Your task to perform on an android device: clear all cookies in the chrome app Image 0: 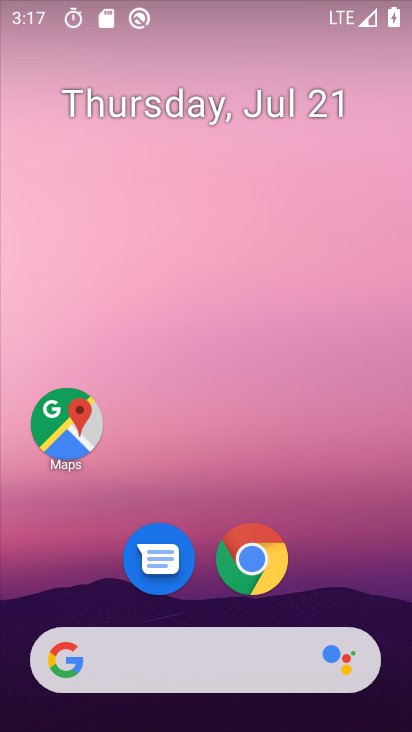
Step 0: drag from (373, 561) to (352, 115)
Your task to perform on an android device: clear all cookies in the chrome app Image 1: 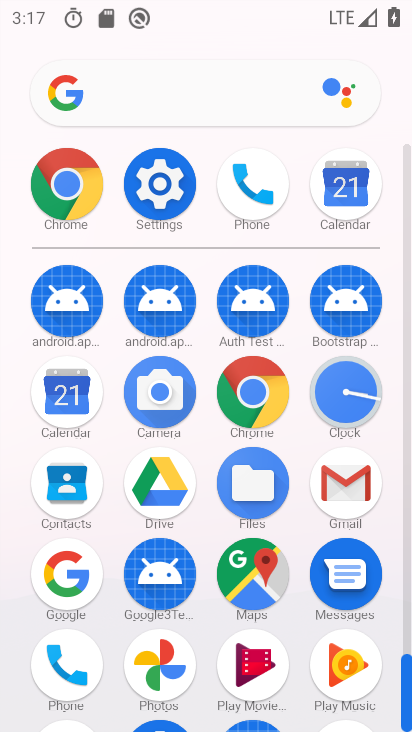
Step 1: click (280, 398)
Your task to perform on an android device: clear all cookies in the chrome app Image 2: 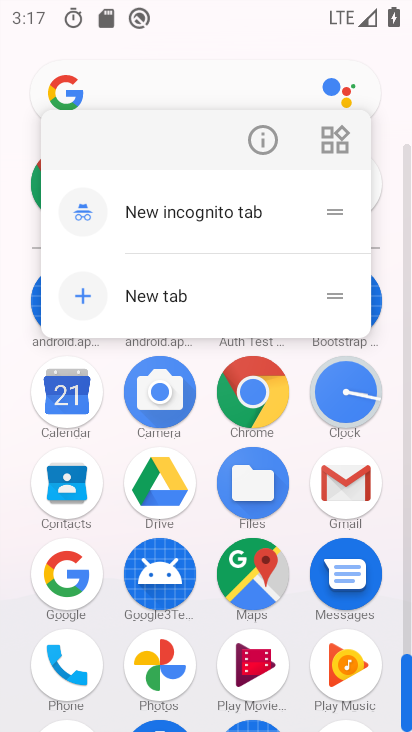
Step 2: click (261, 385)
Your task to perform on an android device: clear all cookies in the chrome app Image 3: 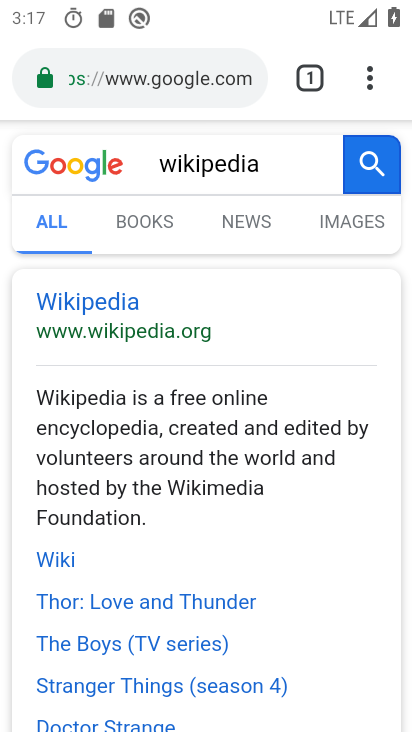
Step 3: click (368, 86)
Your task to perform on an android device: clear all cookies in the chrome app Image 4: 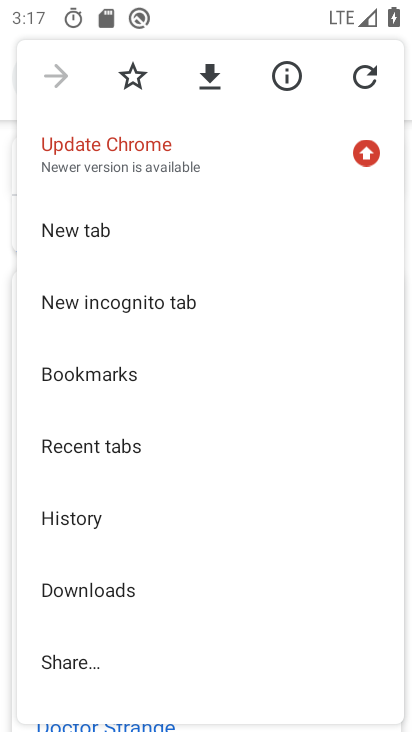
Step 4: drag from (312, 461) to (316, 399)
Your task to perform on an android device: clear all cookies in the chrome app Image 5: 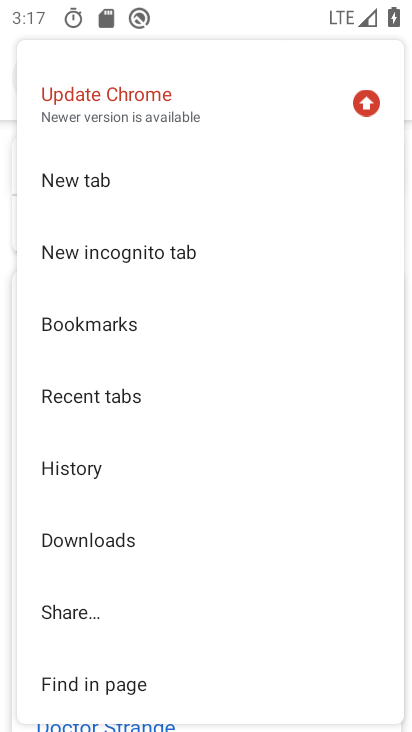
Step 5: drag from (295, 514) to (295, 441)
Your task to perform on an android device: clear all cookies in the chrome app Image 6: 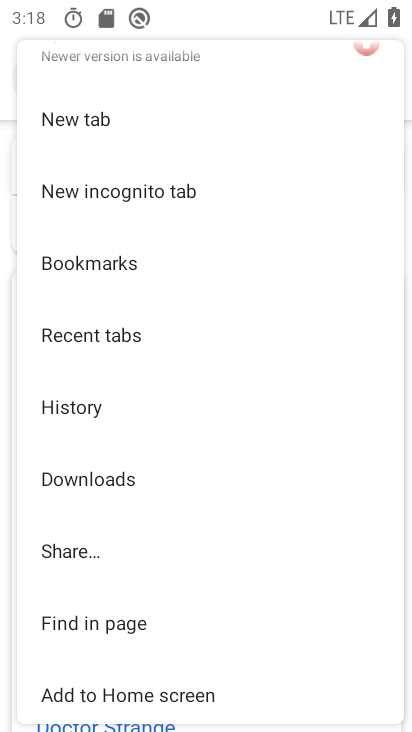
Step 6: drag from (275, 517) to (274, 426)
Your task to perform on an android device: clear all cookies in the chrome app Image 7: 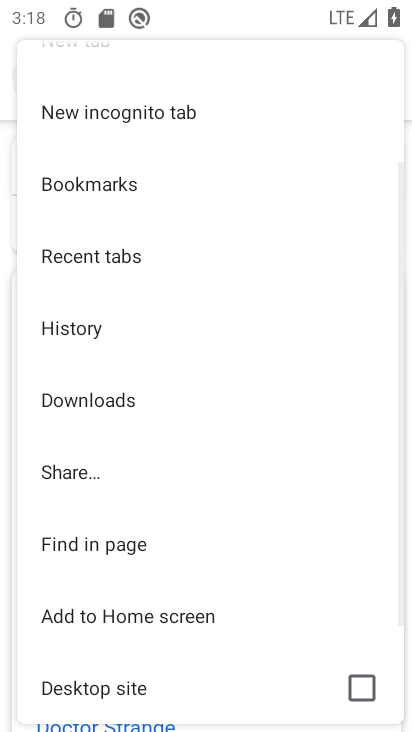
Step 7: drag from (260, 530) to (260, 458)
Your task to perform on an android device: clear all cookies in the chrome app Image 8: 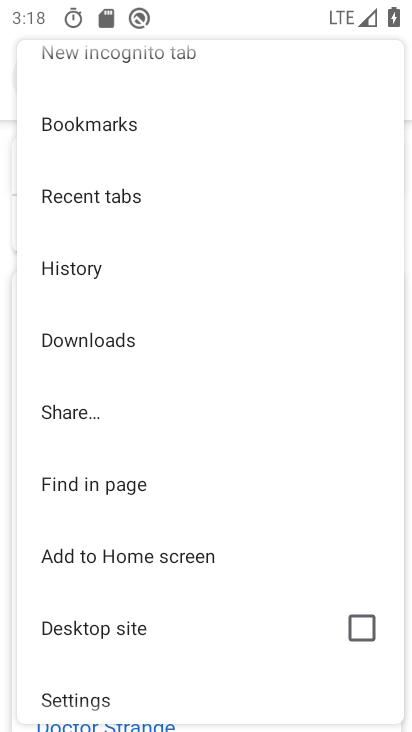
Step 8: drag from (250, 543) to (253, 440)
Your task to perform on an android device: clear all cookies in the chrome app Image 9: 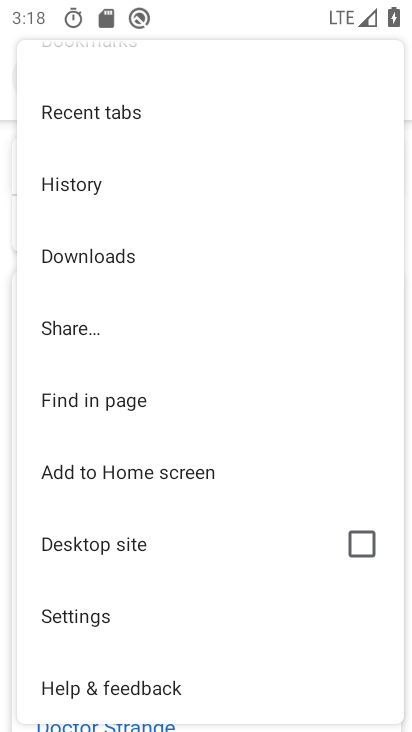
Step 9: click (230, 633)
Your task to perform on an android device: clear all cookies in the chrome app Image 10: 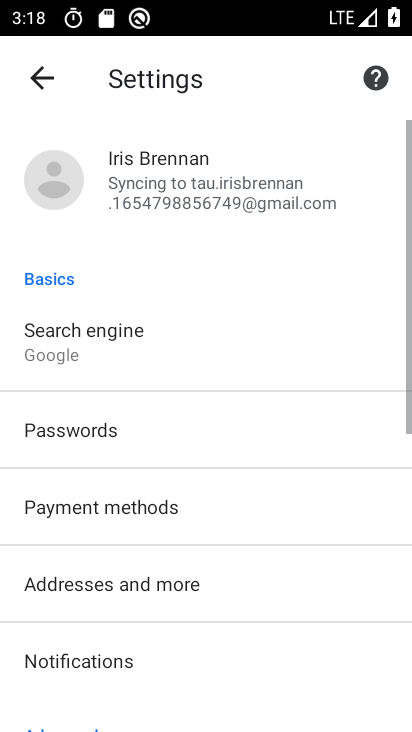
Step 10: drag from (308, 578) to (308, 503)
Your task to perform on an android device: clear all cookies in the chrome app Image 11: 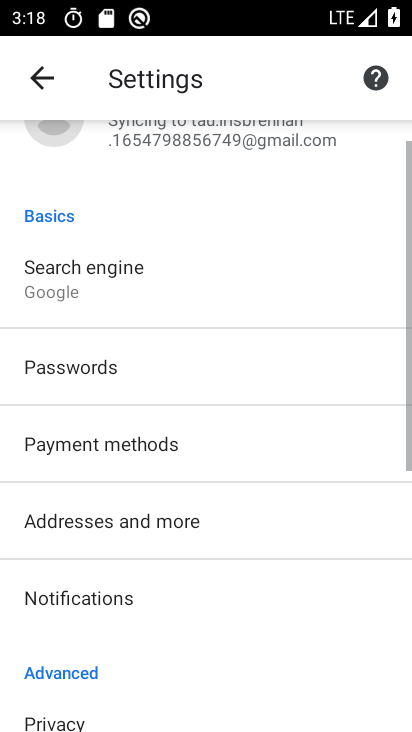
Step 11: drag from (286, 609) to (296, 535)
Your task to perform on an android device: clear all cookies in the chrome app Image 12: 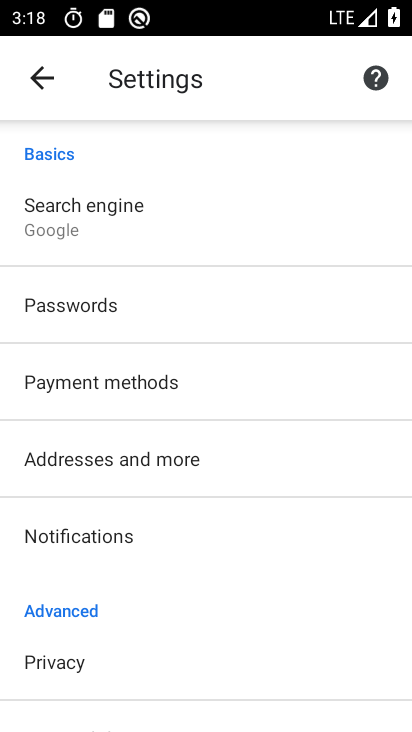
Step 12: drag from (276, 598) to (276, 509)
Your task to perform on an android device: clear all cookies in the chrome app Image 13: 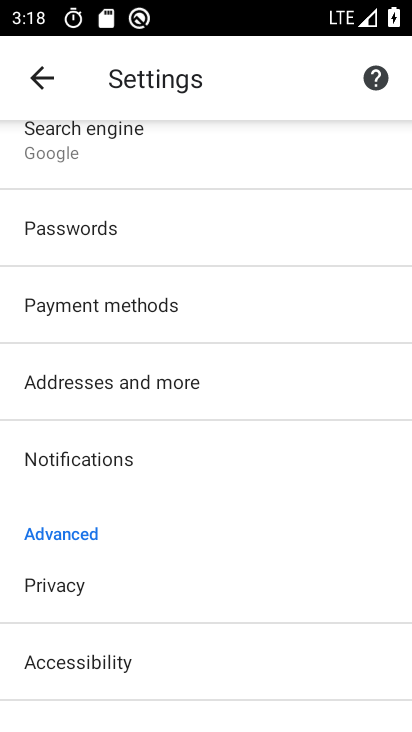
Step 13: drag from (266, 561) to (276, 498)
Your task to perform on an android device: clear all cookies in the chrome app Image 14: 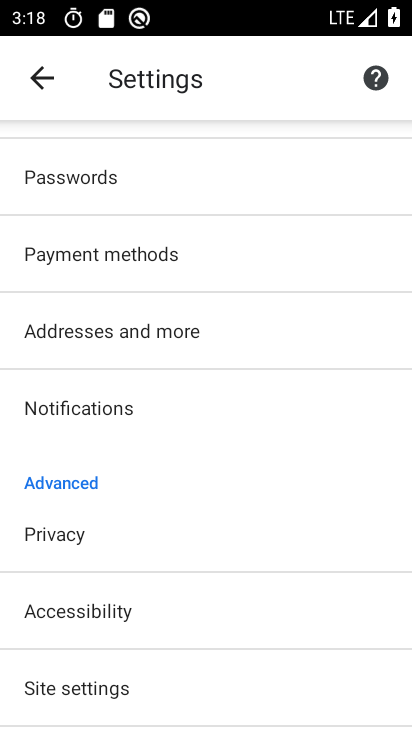
Step 14: drag from (270, 582) to (278, 502)
Your task to perform on an android device: clear all cookies in the chrome app Image 15: 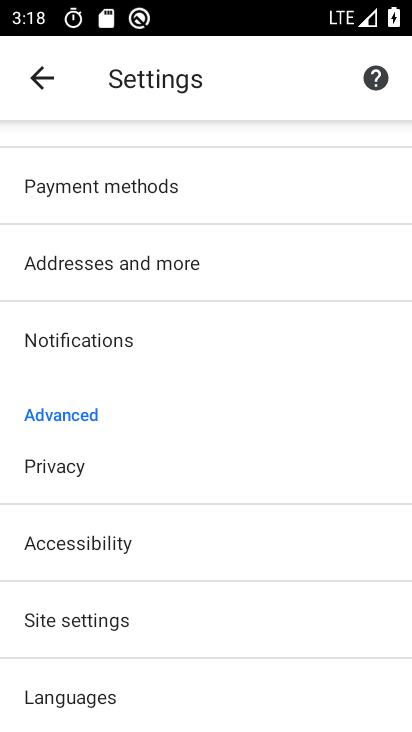
Step 15: drag from (277, 565) to (292, 467)
Your task to perform on an android device: clear all cookies in the chrome app Image 16: 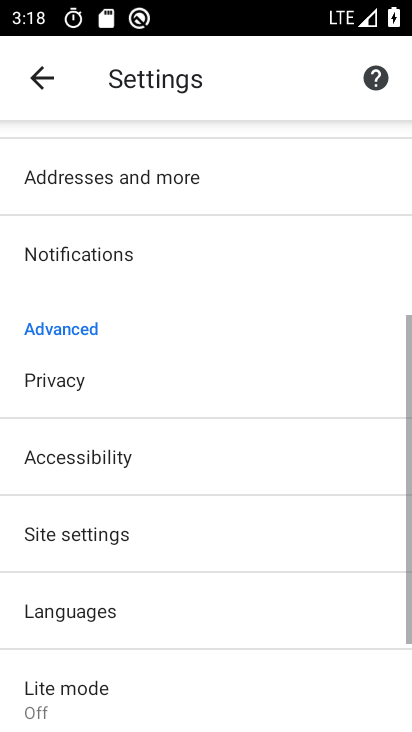
Step 16: drag from (278, 548) to (283, 399)
Your task to perform on an android device: clear all cookies in the chrome app Image 17: 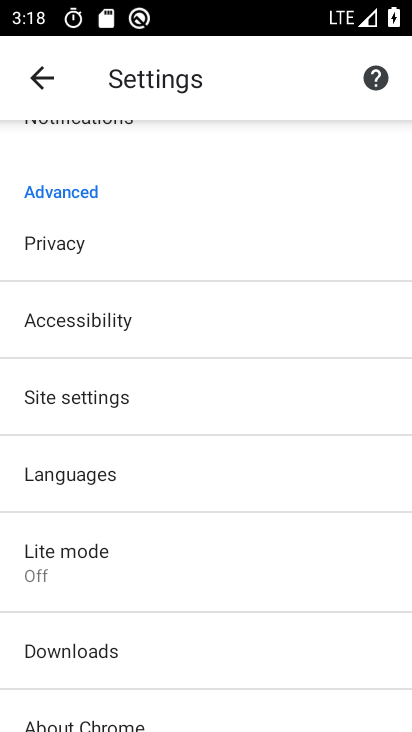
Step 17: click (224, 248)
Your task to perform on an android device: clear all cookies in the chrome app Image 18: 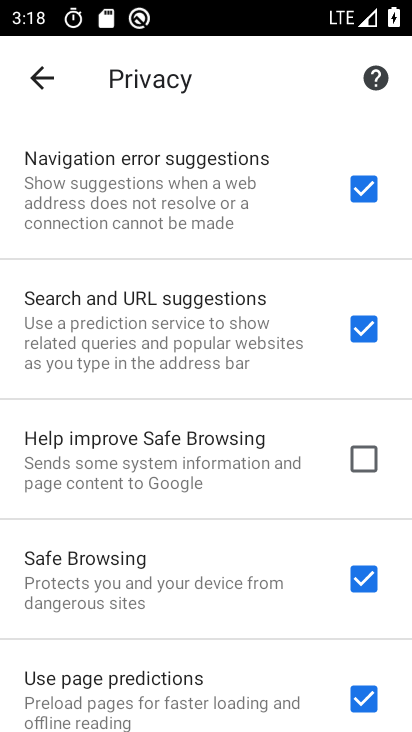
Step 18: drag from (243, 533) to (249, 468)
Your task to perform on an android device: clear all cookies in the chrome app Image 19: 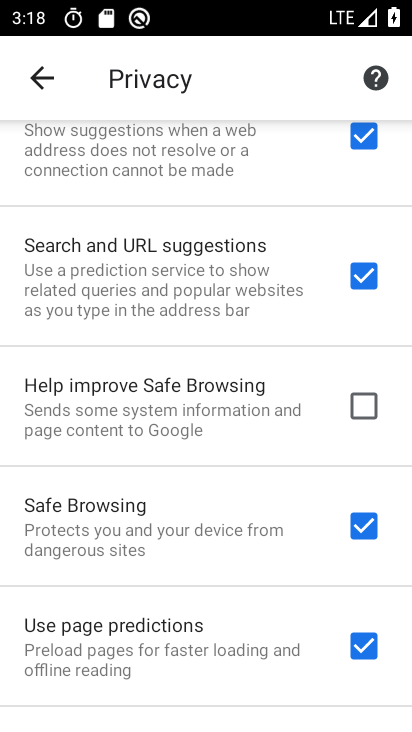
Step 19: drag from (242, 559) to (246, 391)
Your task to perform on an android device: clear all cookies in the chrome app Image 20: 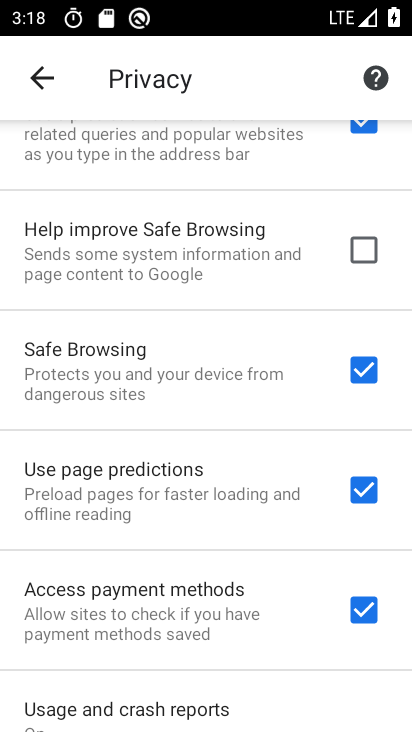
Step 20: drag from (255, 554) to (265, 431)
Your task to perform on an android device: clear all cookies in the chrome app Image 21: 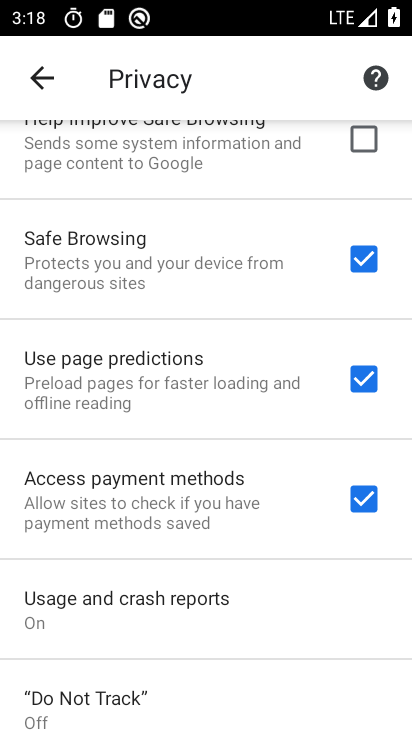
Step 21: drag from (265, 572) to (266, 431)
Your task to perform on an android device: clear all cookies in the chrome app Image 22: 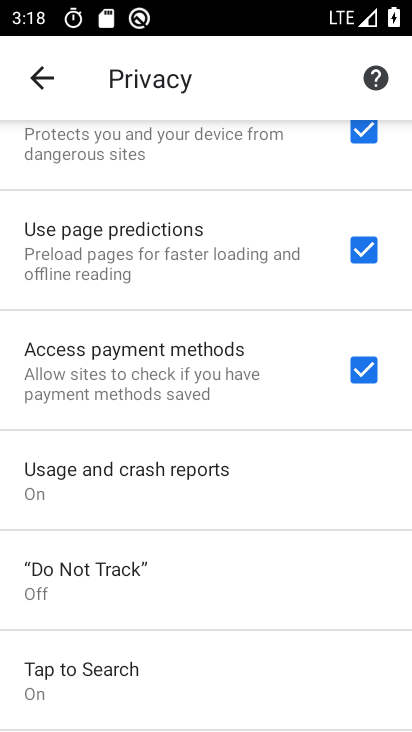
Step 22: drag from (252, 580) to (257, 454)
Your task to perform on an android device: clear all cookies in the chrome app Image 23: 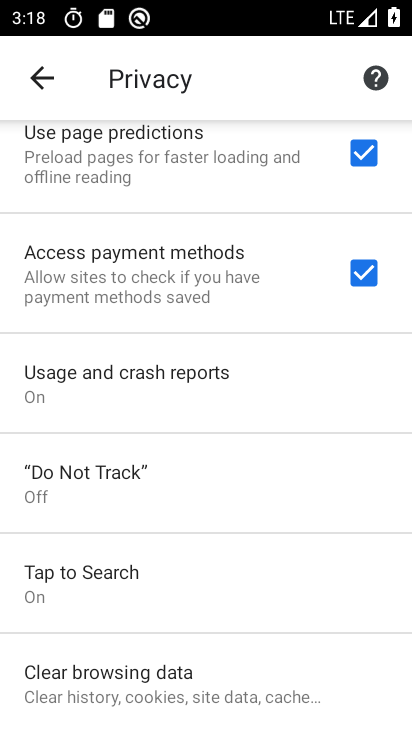
Step 23: click (257, 684)
Your task to perform on an android device: clear all cookies in the chrome app Image 24: 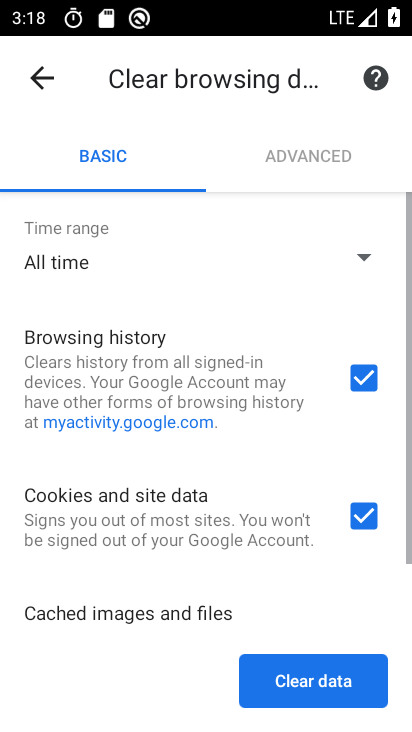
Step 24: click (258, 684)
Your task to perform on an android device: clear all cookies in the chrome app Image 25: 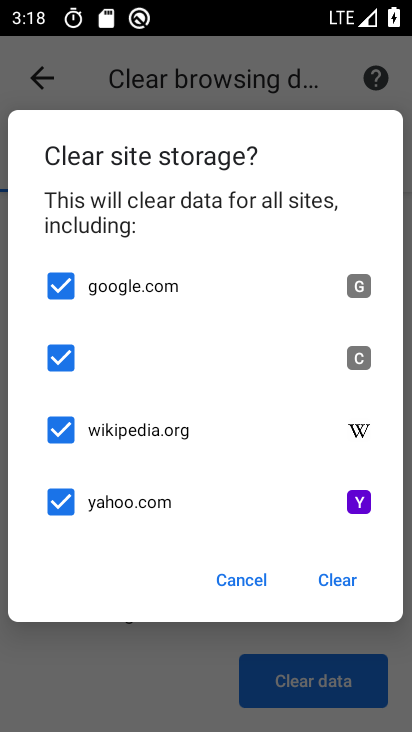
Step 25: click (345, 575)
Your task to perform on an android device: clear all cookies in the chrome app Image 26: 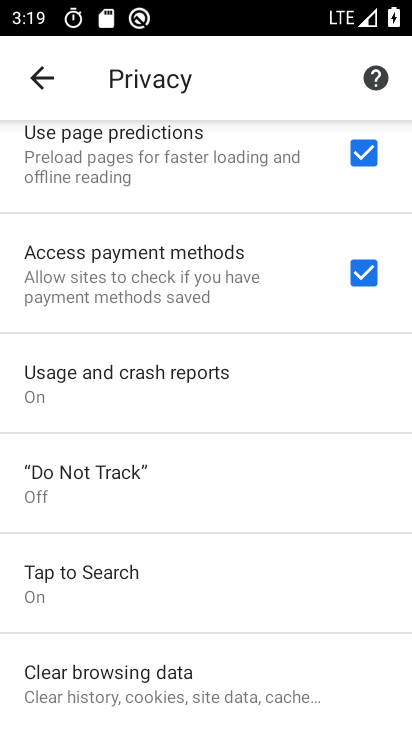
Step 26: task complete